Your task to perform on an android device: Go to Wikipedia Image 0: 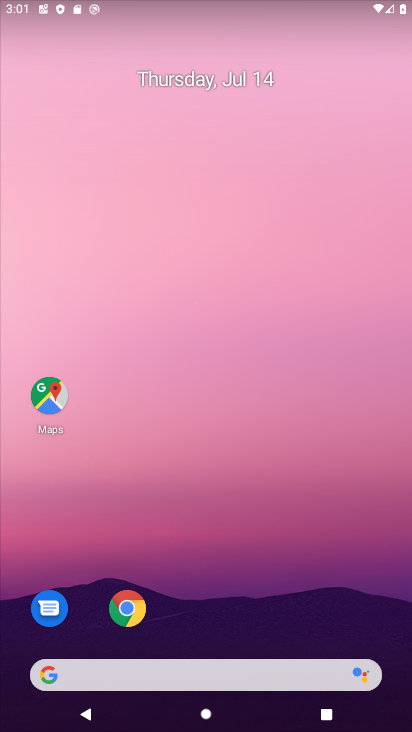
Step 0: press home button
Your task to perform on an android device: Go to Wikipedia Image 1: 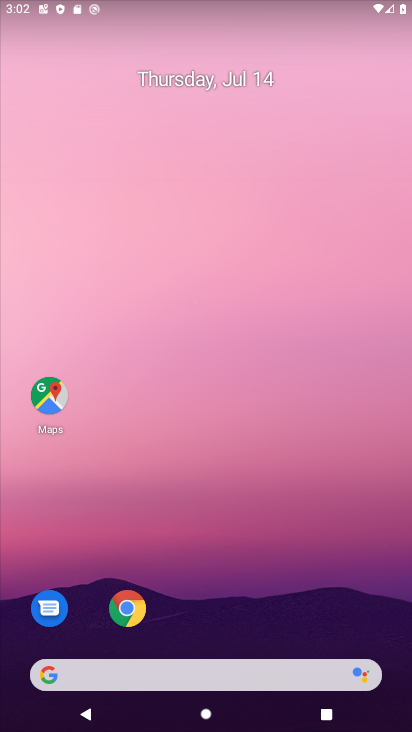
Step 1: click (136, 611)
Your task to perform on an android device: Go to Wikipedia Image 2: 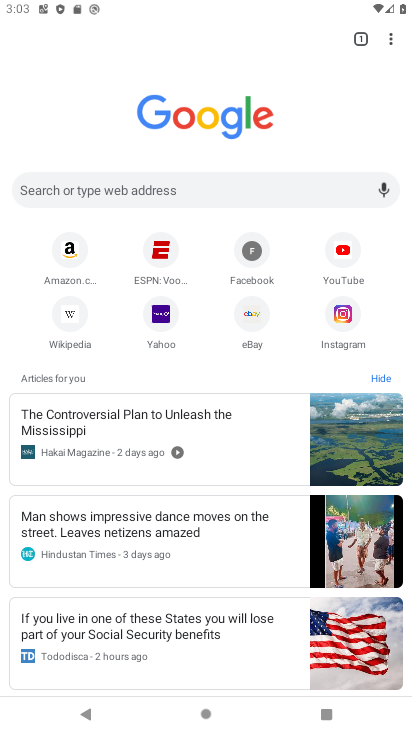
Step 2: click (68, 321)
Your task to perform on an android device: Go to Wikipedia Image 3: 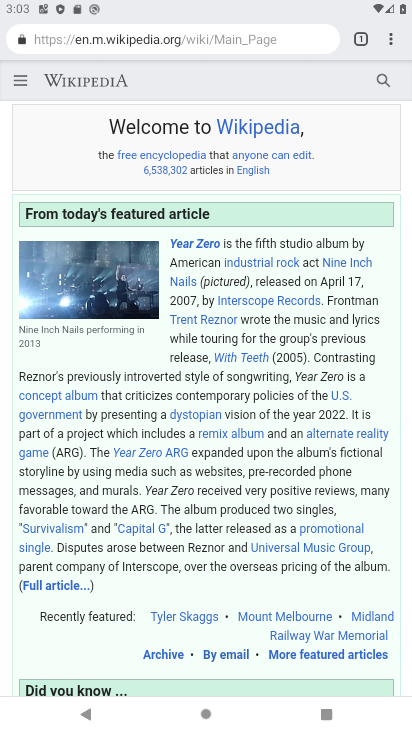
Step 3: task complete